Your task to perform on an android device: turn off airplane mode Image 0: 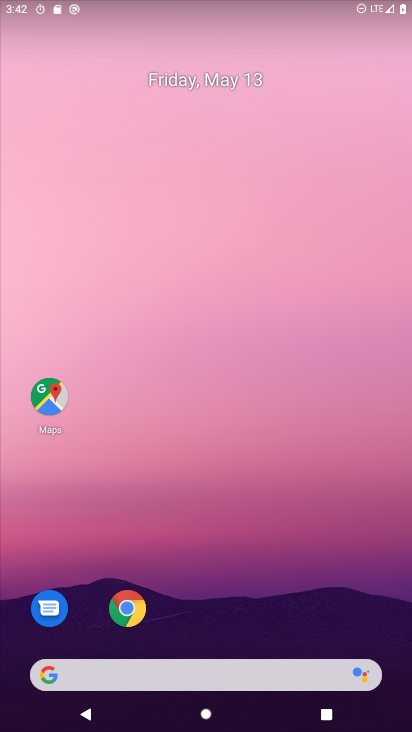
Step 0: drag from (265, 16) to (270, 471)
Your task to perform on an android device: turn off airplane mode Image 1: 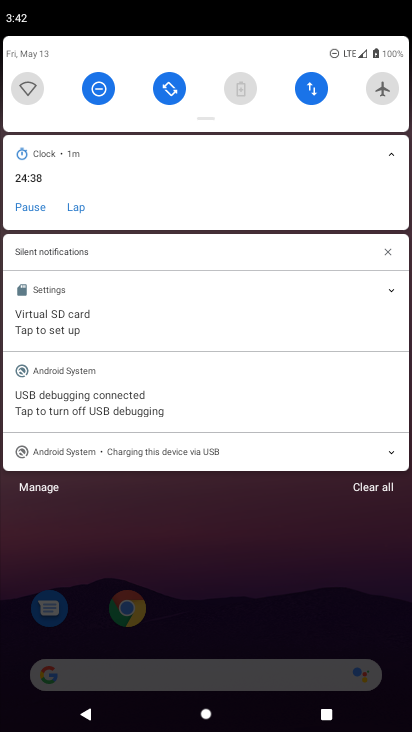
Step 1: click (381, 84)
Your task to perform on an android device: turn off airplane mode Image 2: 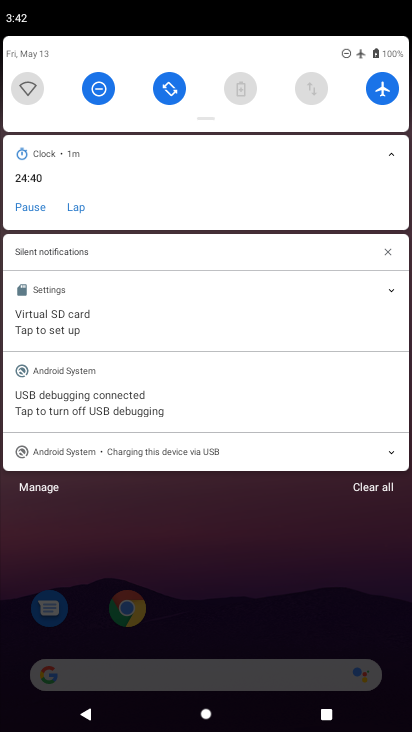
Step 2: click (381, 84)
Your task to perform on an android device: turn off airplane mode Image 3: 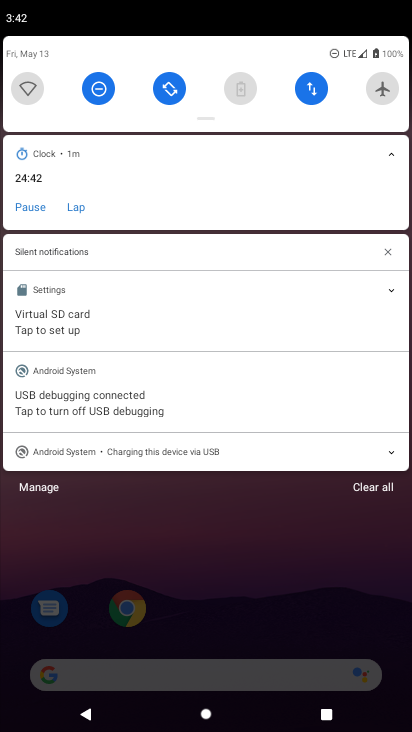
Step 3: task complete